Your task to perform on an android device: Go to notification settings Image 0: 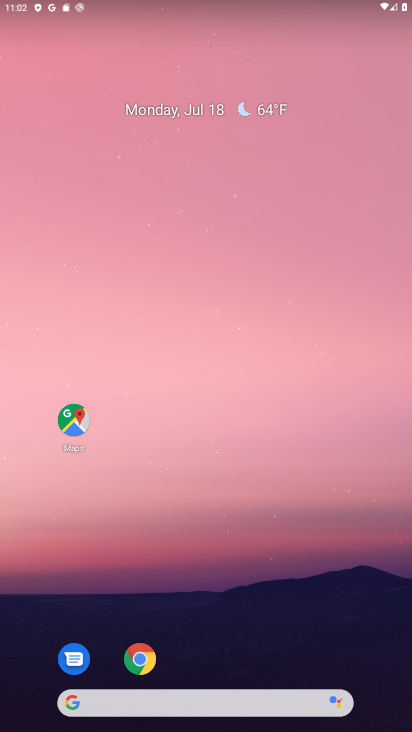
Step 0: press home button
Your task to perform on an android device: Go to notification settings Image 1: 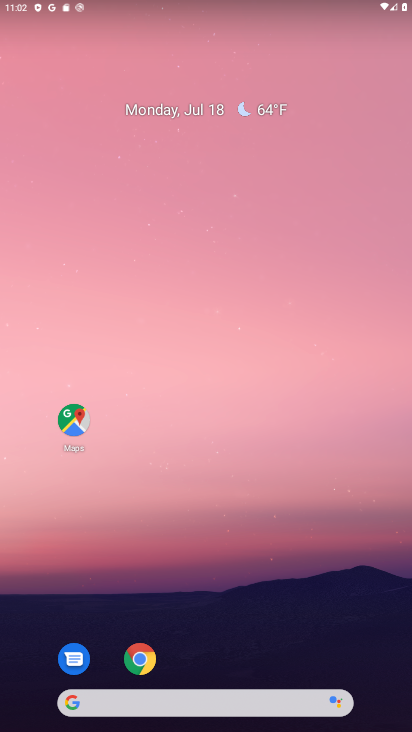
Step 1: press home button
Your task to perform on an android device: Go to notification settings Image 2: 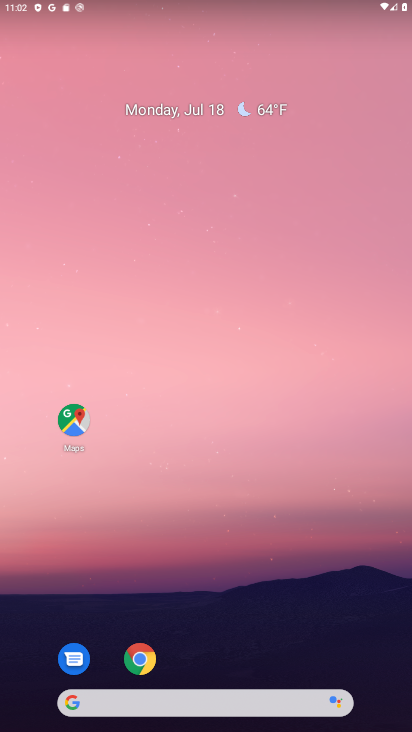
Step 2: drag from (299, 539) to (267, 247)
Your task to perform on an android device: Go to notification settings Image 3: 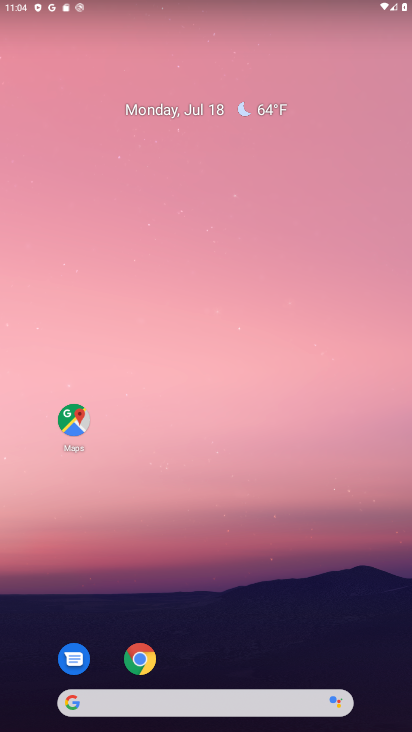
Step 3: drag from (307, 621) to (185, 1)
Your task to perform on an android device: Go to notification settings Image 4: 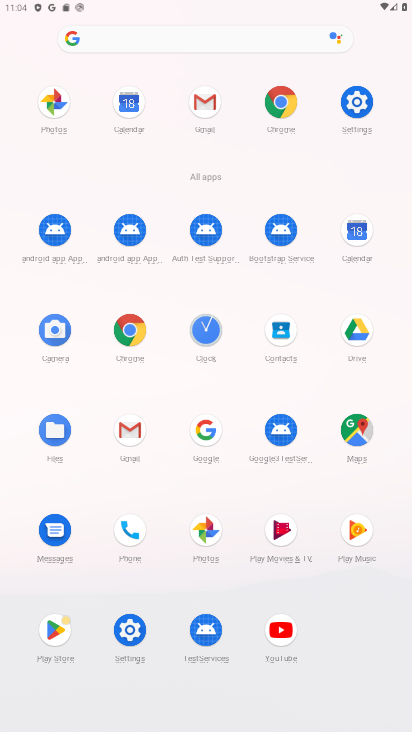
Step 4: click (364, 116)
Your task to perform on an android device: Go to notification settings Image 5: 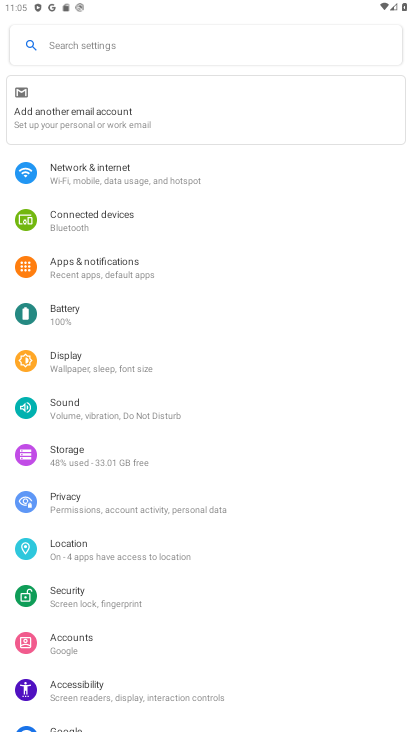
Step 5: click (95, 282)
Your task to perform on an android device: Go to notification settings Image 6: 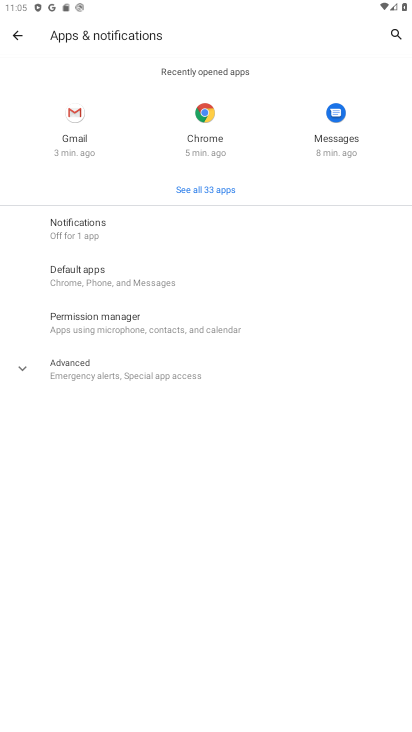
Step 6: click (73, 242)
Your task to perform on an android device: Go to notification settings Image 7: 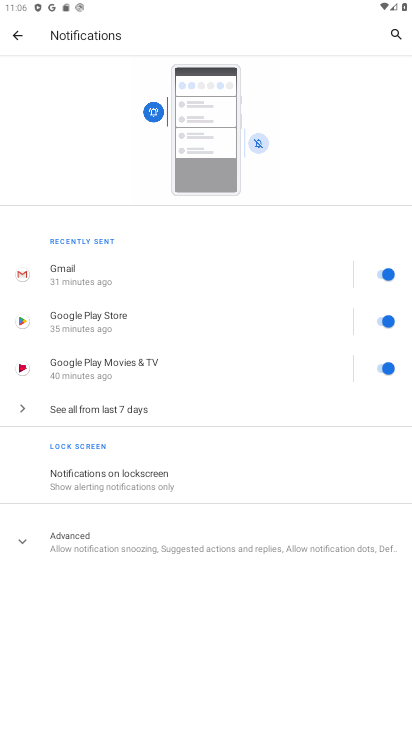
Step 7: task complete